Your task to perform on an android device: Go to Amazon Image 0: 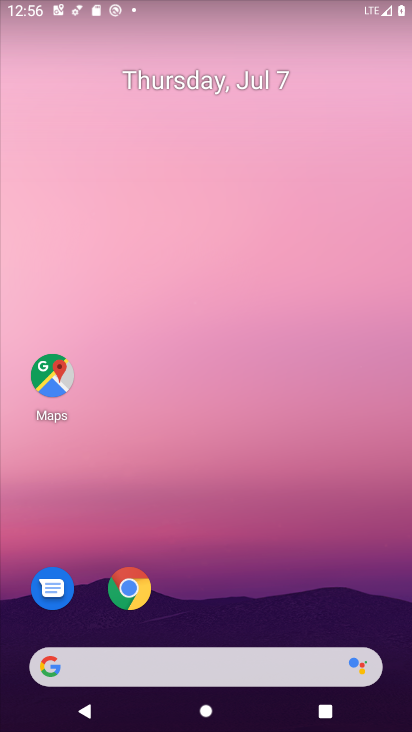
Step 0: drag from (221, 624) to (215, 555)
Your task to perform on an android device: Go to Amazon Image 1: 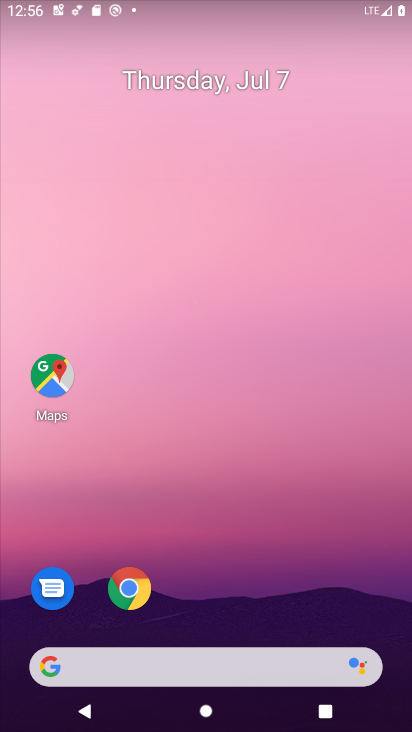
Step 1: drag from (185, 649) to (304, 373)
Your task to perform on an android device: Go to Amazon Image 2: 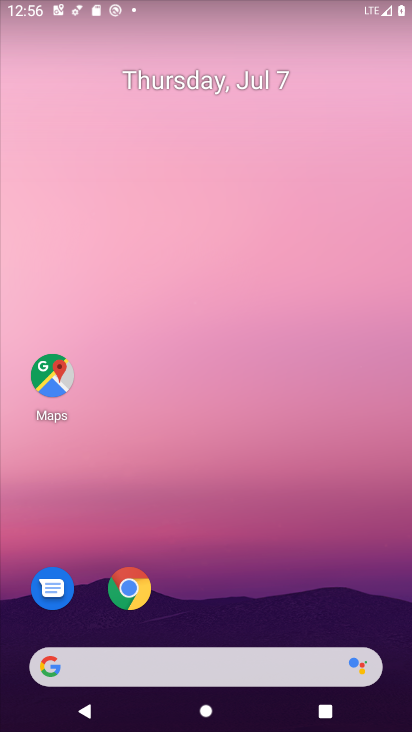
Step 2: drag from (225, 638) to (291, 228)
Your task to perform on an android device: Go to Amazon Image 3: 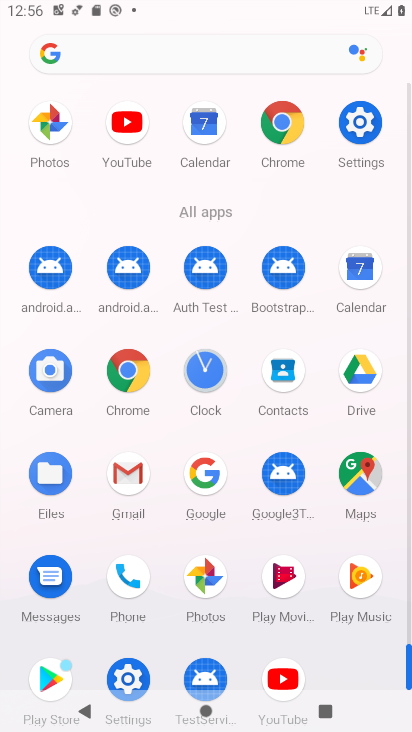
Step 3: click (278, 114)
Your task to perform on an android device: Go to Amazon Image 4: 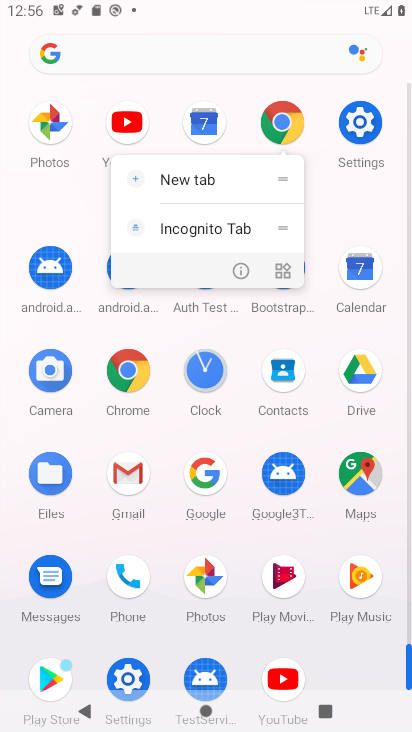
Step 4: click (235, 269)
Your task to perform on an android device: Go to Amazon Image 5: 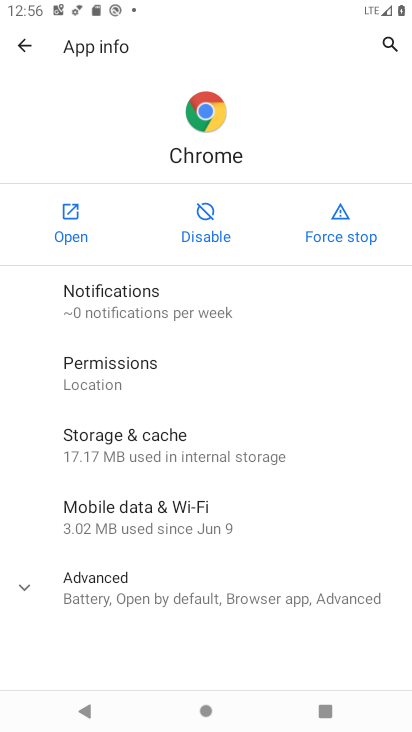
Step 5: click (71, 213)
Your task to perform on an android device: Go to Amazon Image 6: 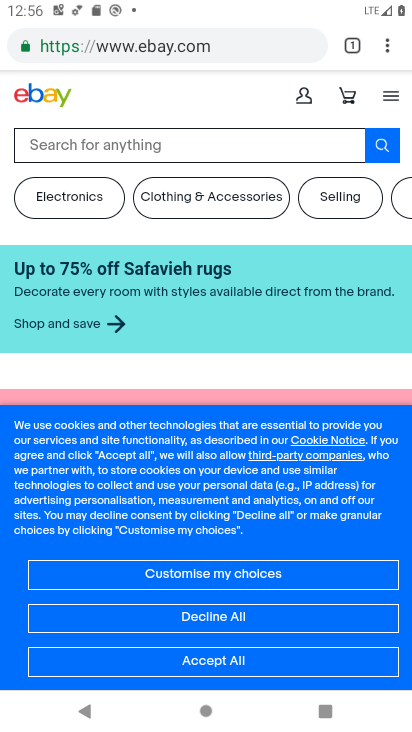
Step 6: click (356, 47)
Your task to perform on an android device: Go to Amazon Image 7: 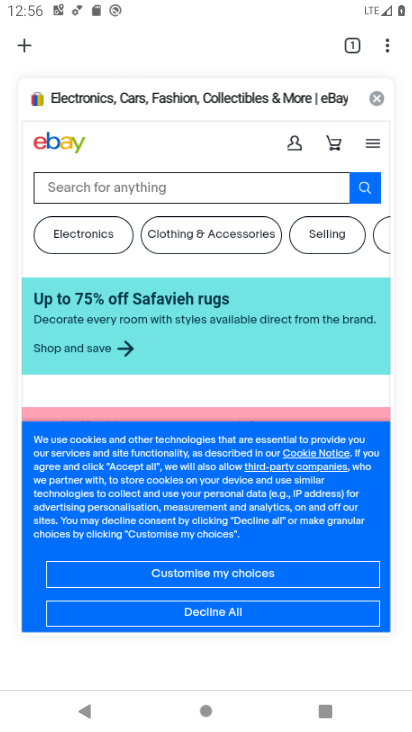
Step 7: click (159, 139)
Your task to perform on an android device: Go to Amazon Image 8: 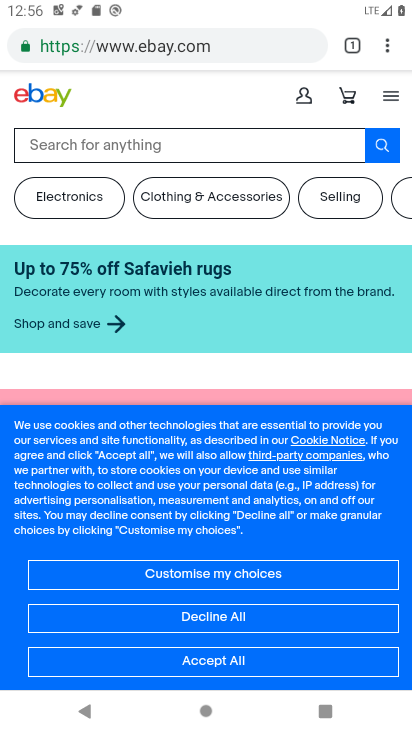
Step 8: click (151, 45)
Your task to perform on an android device: Go to Amazon Image 9: 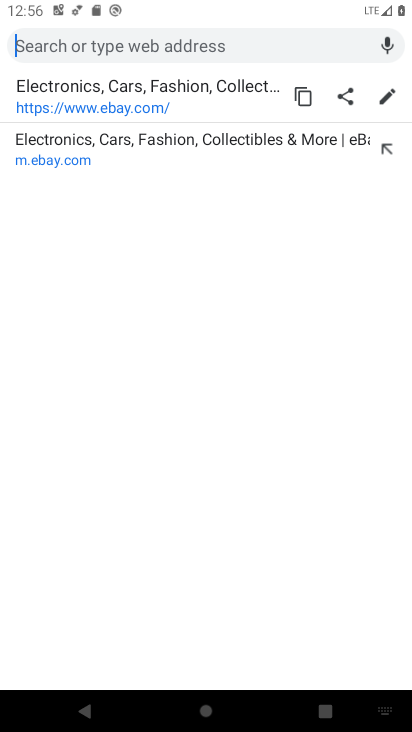
Step 9: type "amazon"
Your task to perform on an android device: Go to Amazon Image 10: 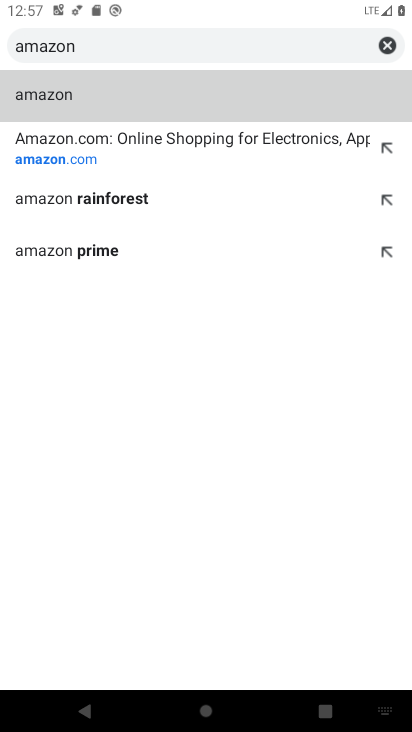
Step 10: click (46, 150)
Your task to perform on an android device: Go to Amazon Image 11: 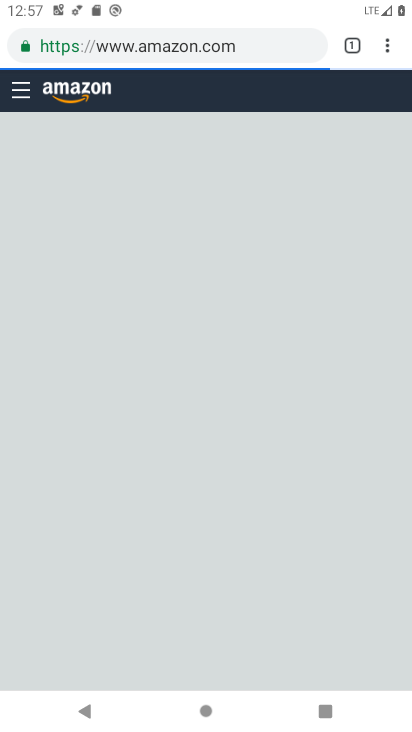
Step 11: task complete